Your task to perform on an android device: Go to ESPN.com Image 0: 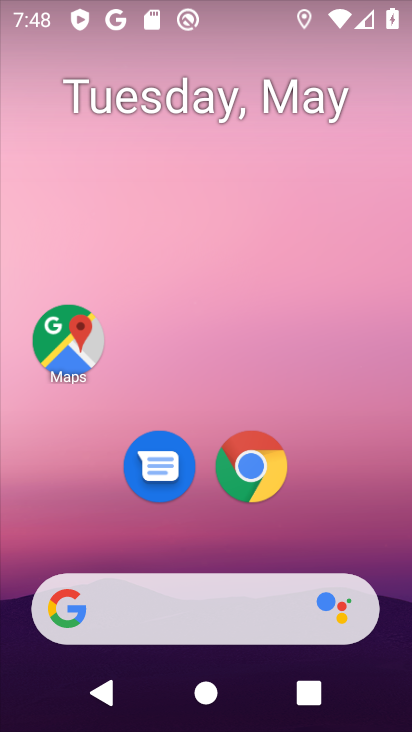
Step 0: click (255, 465)
Your task to perform on an android device: Go to ESPN.com Image 1: 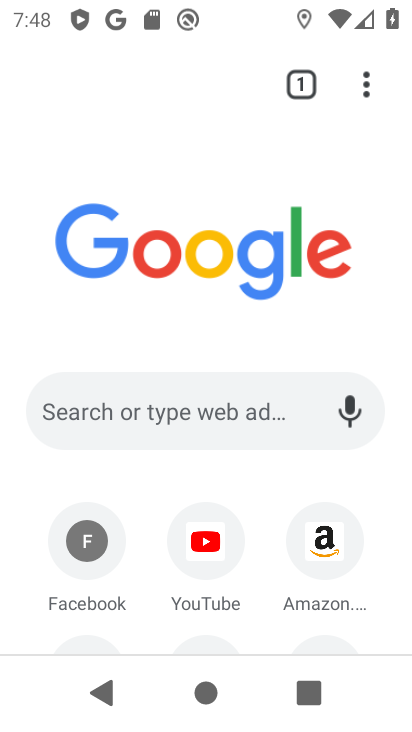
Step 1: drag from (229, 611) to (252, 213)
Your task to perform on an android device: Go to ESPN.com Image 2: 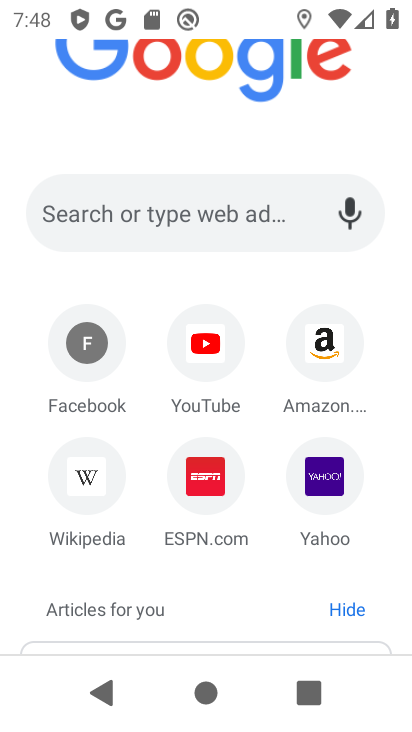
Step 2: click (210, 478)
Your task to perform on an android device: Go to ESPN.com Image 3: 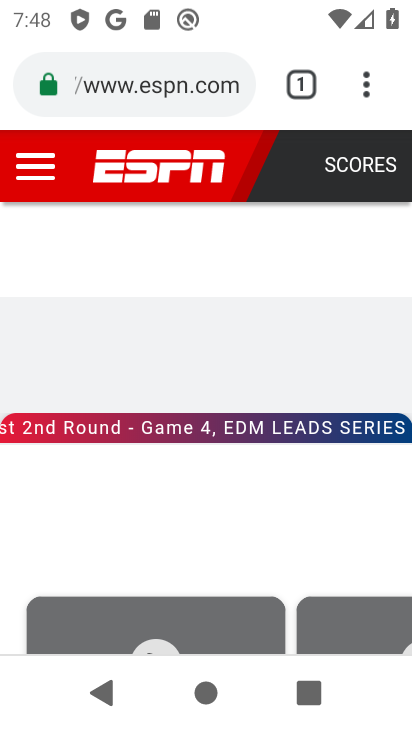
Step 3: task complete